Your task to perform on an android device: check storage Image 0: 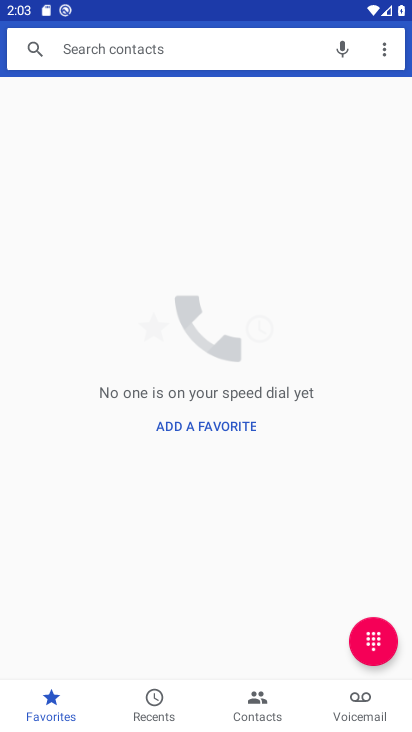
Step 0: press home button
Your task to perform on an android device: check storage Image 1: 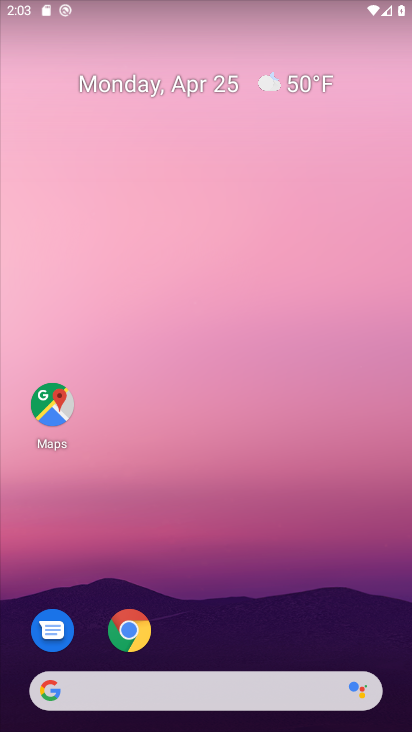
Step 1: drag from (192, 641) to (245, 94)
Your task to perform on an android device: check storage Image 2: 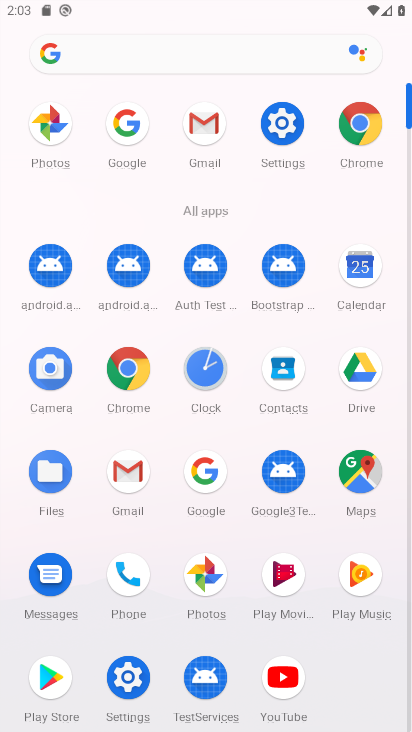
Step 2: click (288, 103)
Your task to perform on an android device: check storage Image 3: 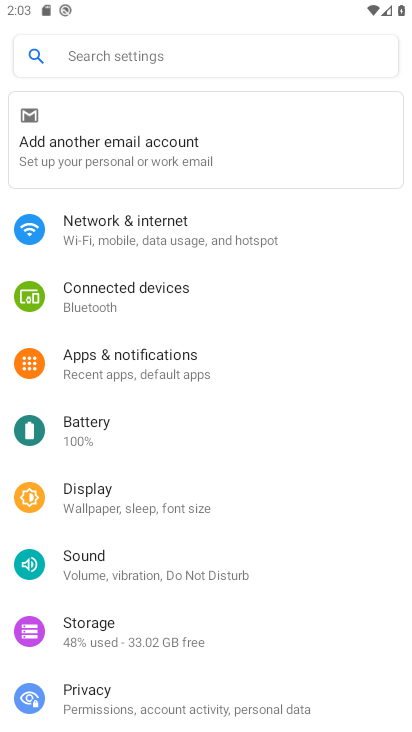
Step 3: drag from (108, 574) to (201, 263)
Your task to perform on an android device: check storage Image 4: 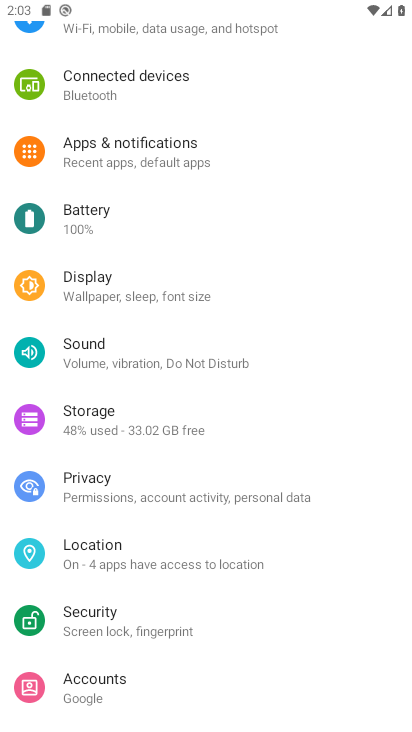
Step 4: click (136, 417)
Your task to perform on an android device: check storage Image 5: 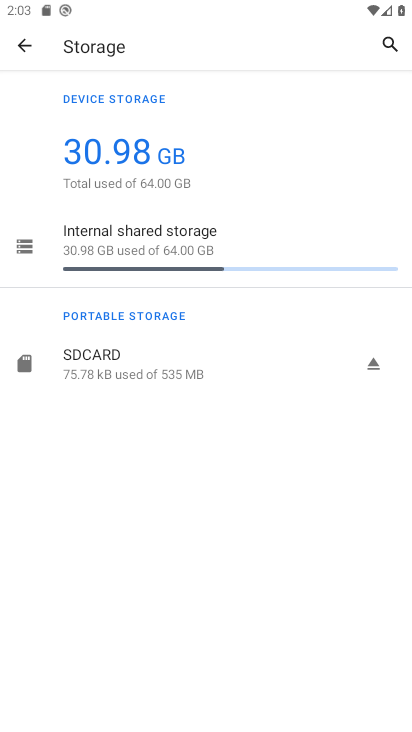
Step 5: task complete